Your task to perform on an android device: toggle wifi Image 0: 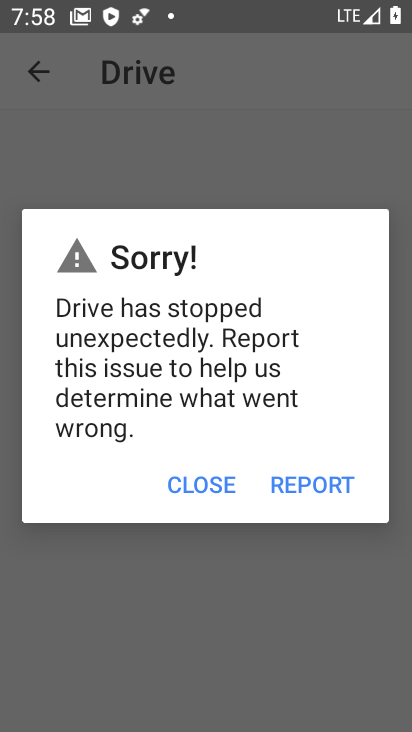
Step 0: press home button
Your task to perform on an android device: toggle wifi Image 1: 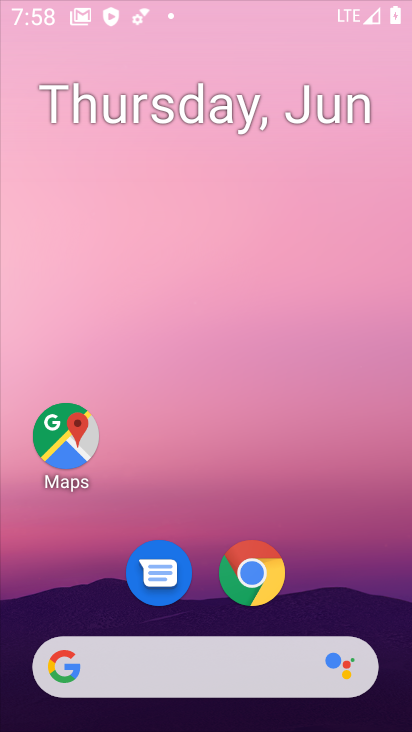
Step 1: drag from (297, 601) to (316, 209)
Your task to perform on an android device: toggle wifi Image 2: 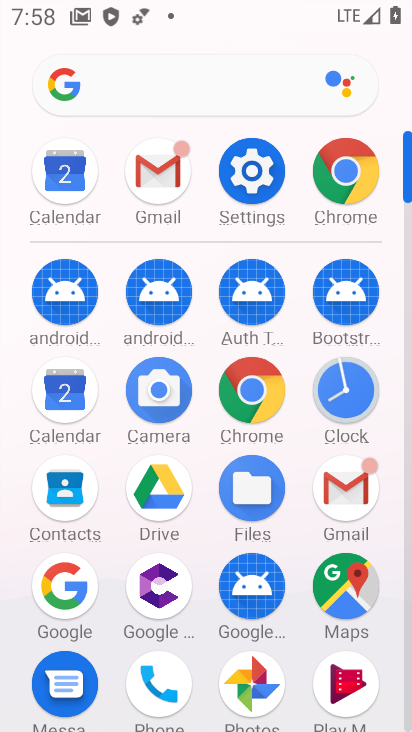
Step 2: click (265, 163)
Your task to perform on an android device: toggle wifi Image 3: 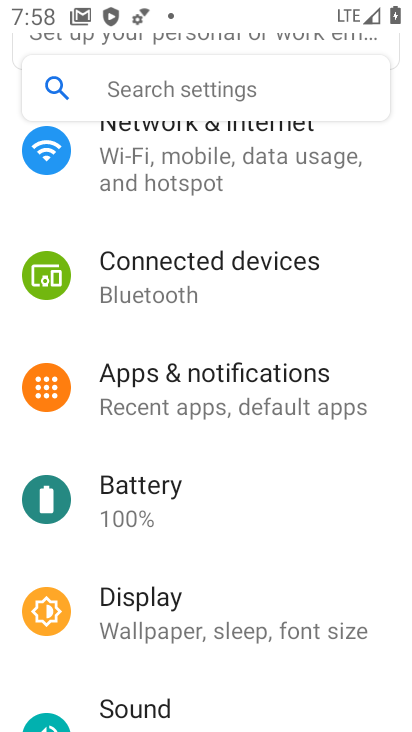
Step 3: drag from (182, 171) to (209, 564)
Your task to perform on an android device: toggle wifi Image 4: 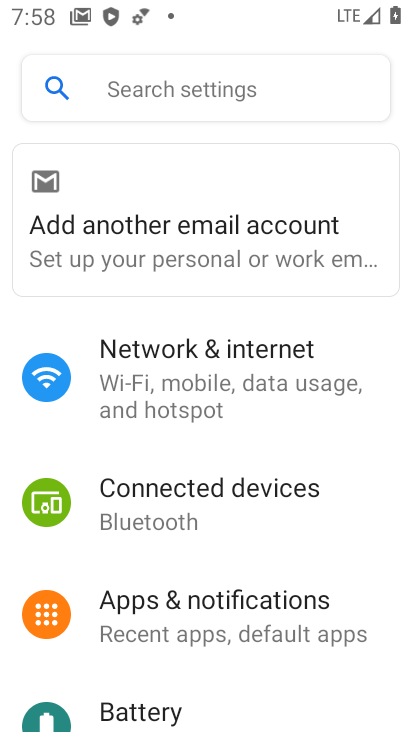
Step 4: click (195, 353)
Your task to perform on an android device: toggle wifi Image 5: 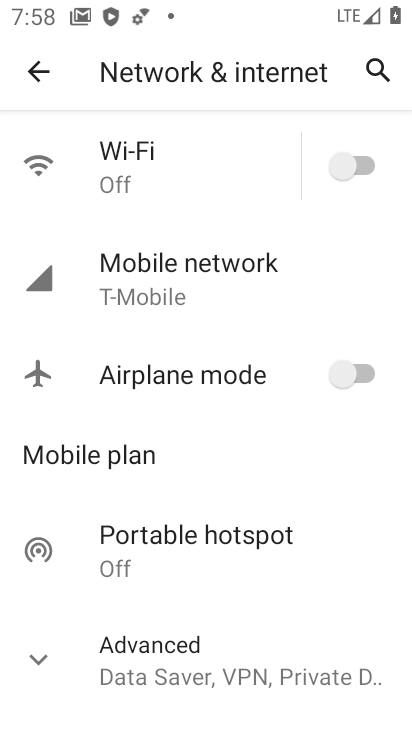
Step 5: click (357, 158)
Your task to perform on an android device: toggle wifi Image 6: 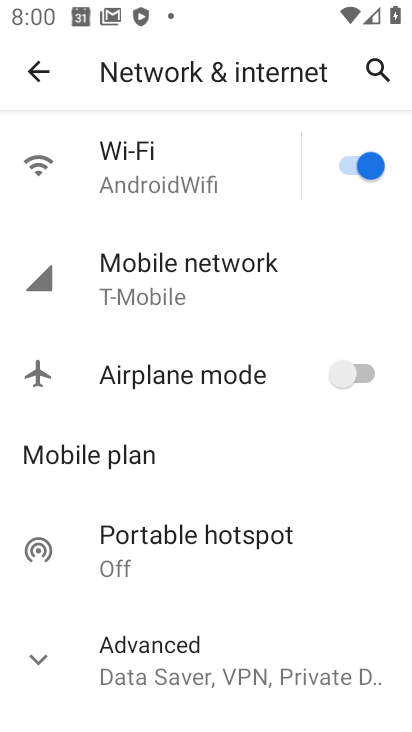
Step 6: task complete